Your task to perform on an android device: change your default location settings in chrome Image 0: 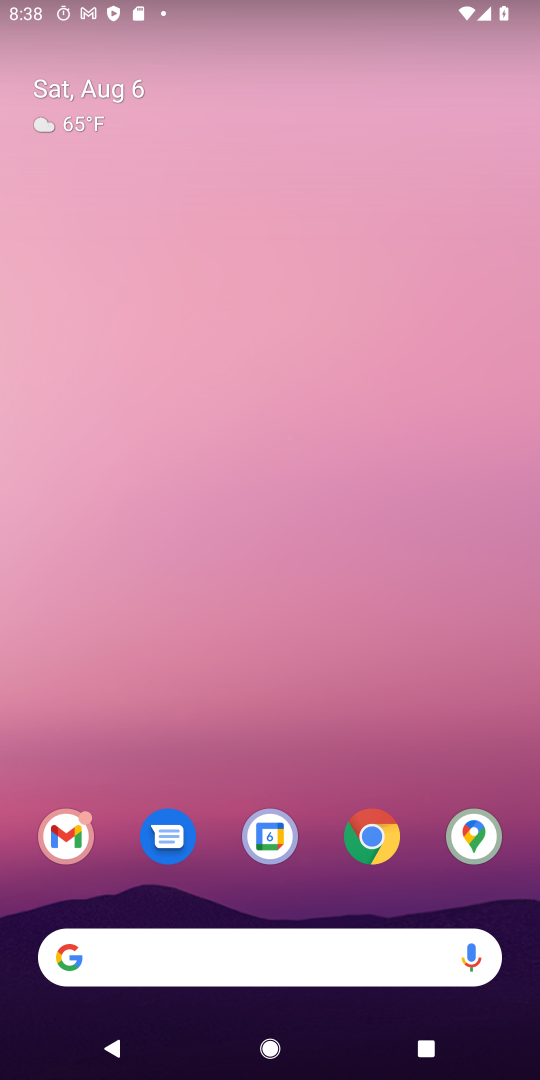
Step 0: drag from (420, 891) to (284, 4)
Your task to perform on an android device: change your default location settings in chrome Image 1: 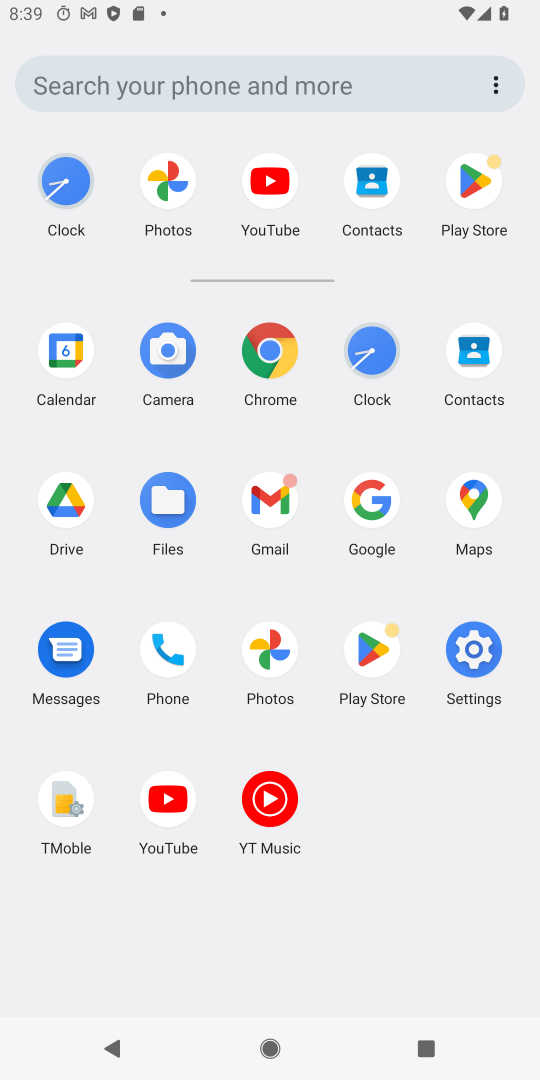
Step 1: click (269, 356)
Your task to perform on an android device: change your default location settings in chrome Image 2: 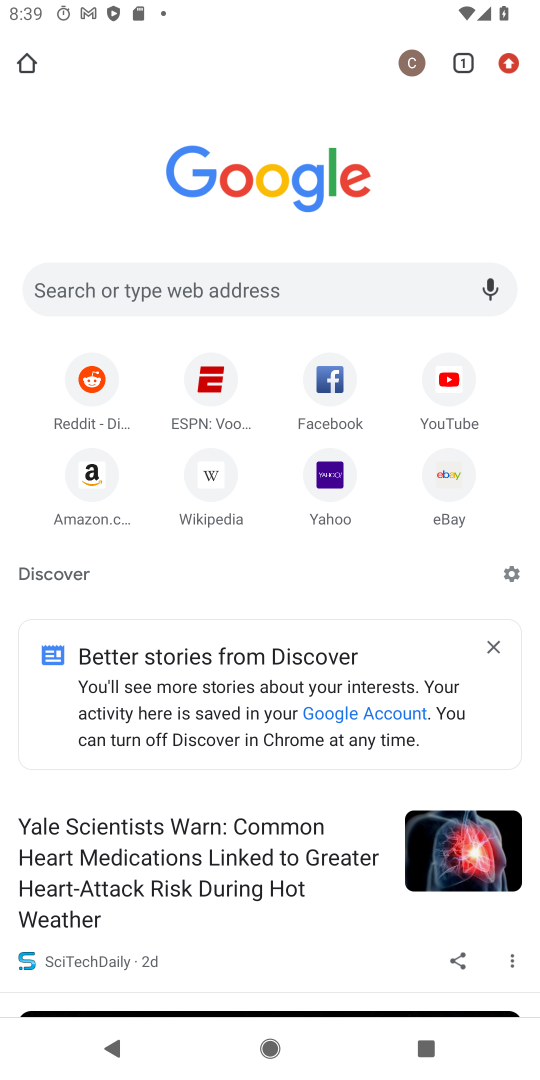
Step 2: click (502, 57)
Your task to perform on an android device: change your default location settings in chrome Image 3: 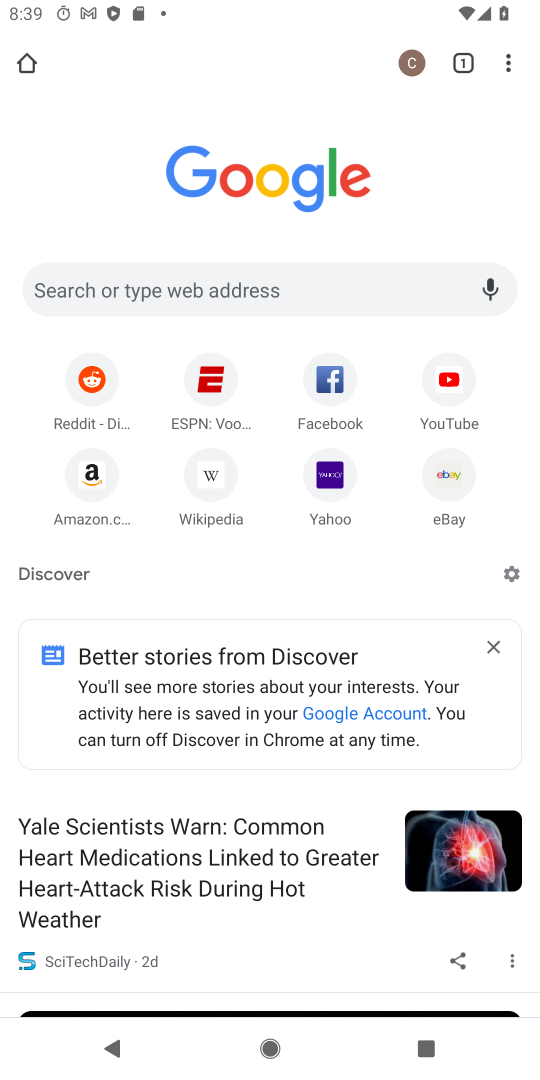
Step 3: click (513, 65)
Your task to perform on an android device: change your default location settings in chrome Image 4: 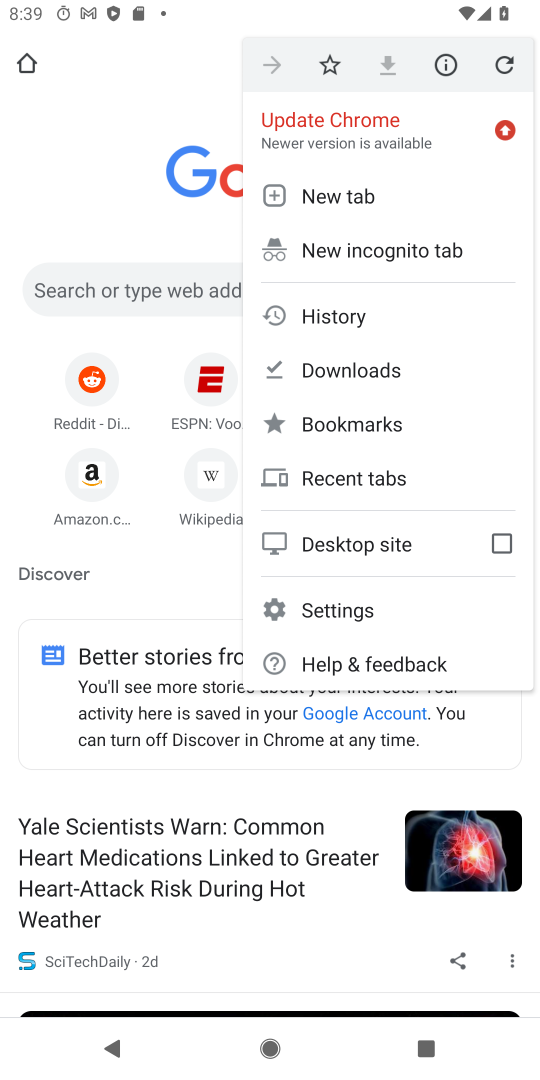
Step 4: click (343, 620)
Your task to perform on an android device: change your default location settings in chrome Image 5: 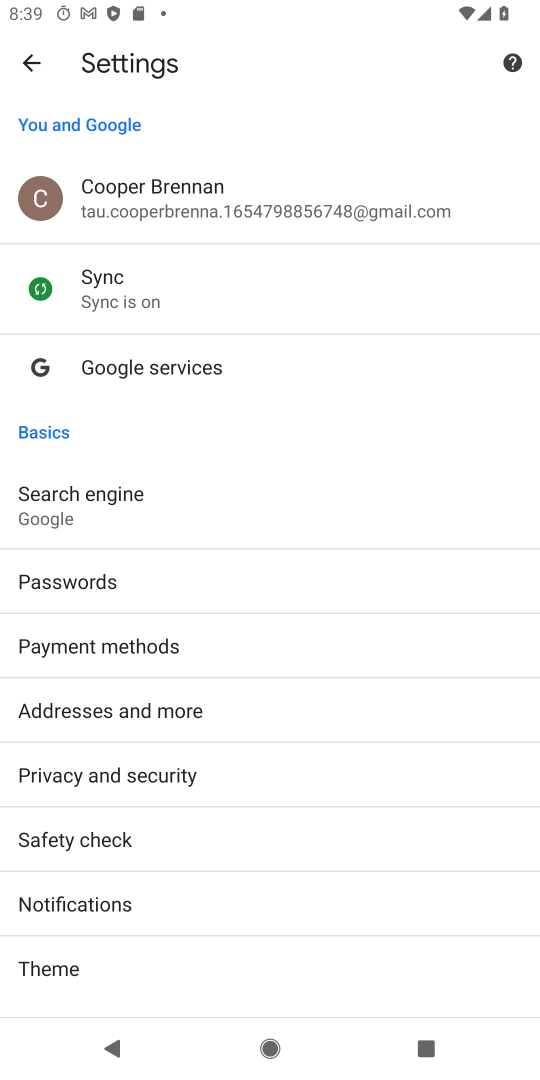
Step 5: click (96, 521)
Your task to perform on an android device: change your default location settings in chrome Image 6: 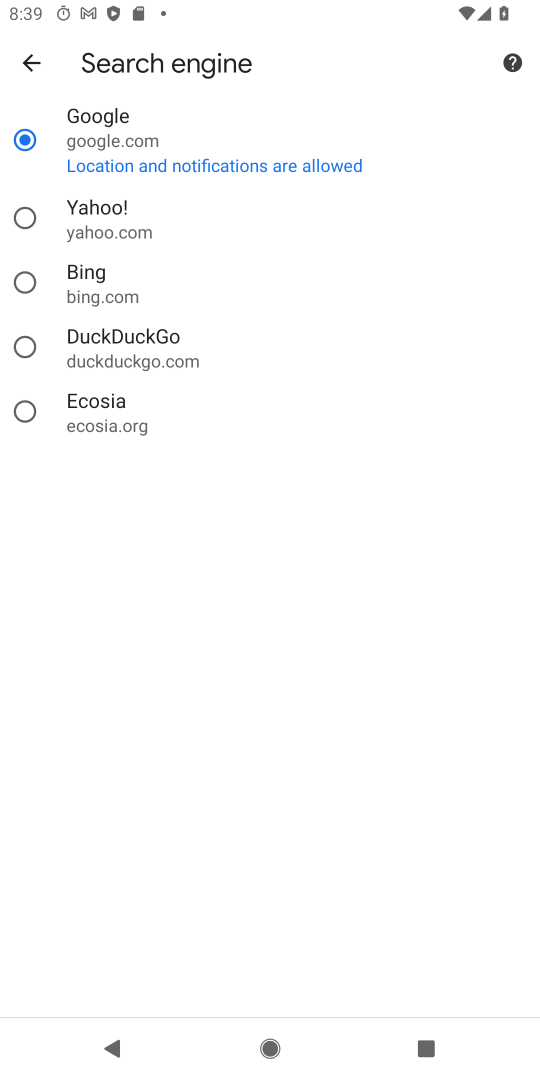
Step 6: click (99, 307)
Your task to perform on an android device: change your default location settings in chrome Image 7: 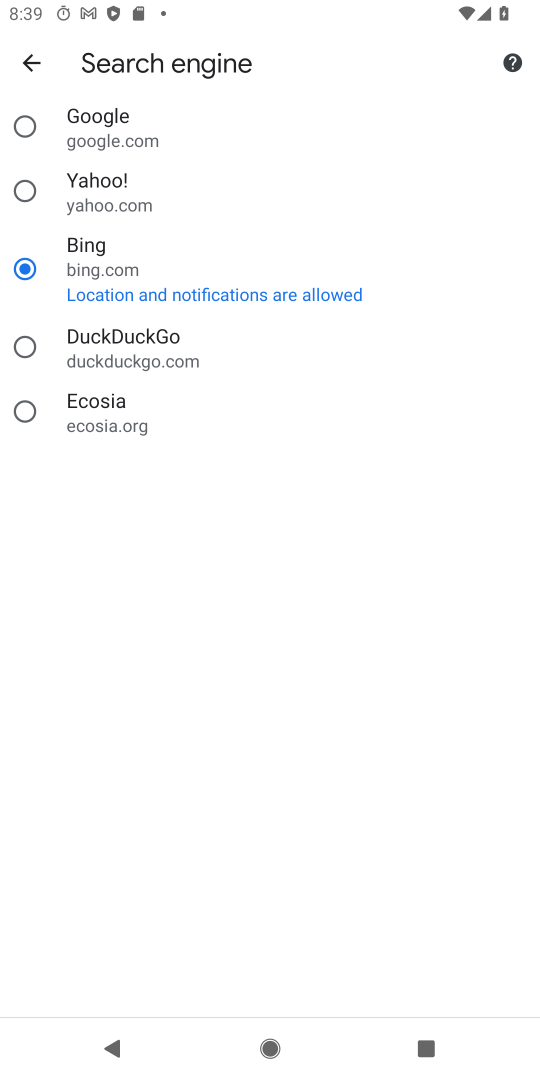
Step 7: task complete